Your task to perform on an android device: Go to internet settings Image 0: 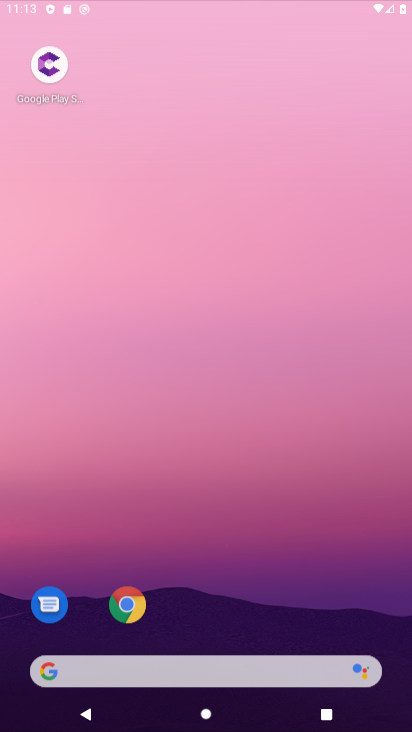
Step 0: press home button
Your task to perform on an android device: Go to internet settings Image 1: 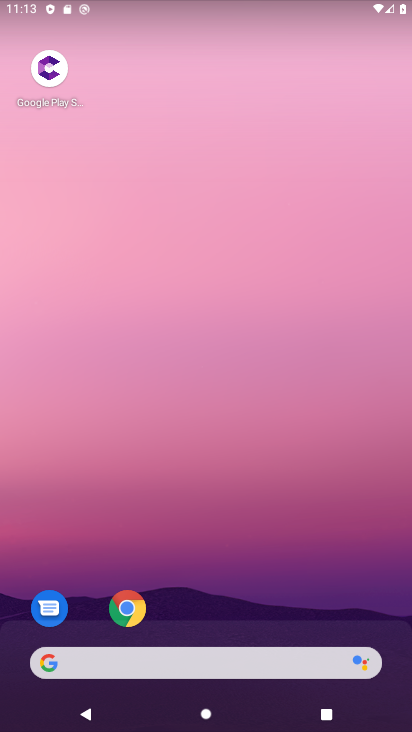
Step 1: drag from (211, 540) to (157, 58)
Your task to perform on an android device: Go to internet settings Image 2: 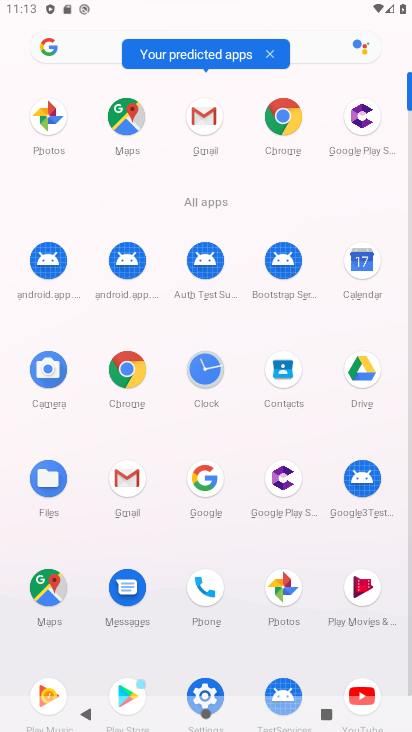
Step 2: click (206, 685)
Your task to perform on an android device: Go to internet settings Image 3: 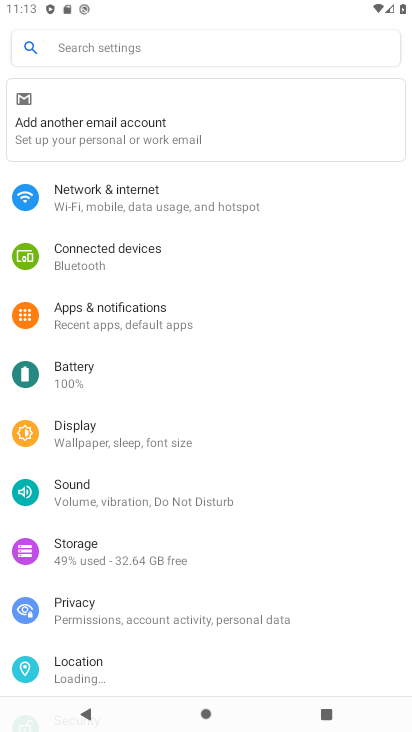
Step 3: click (183, 203)
Your task to perform on an android device: Go to internet settings Image 4: 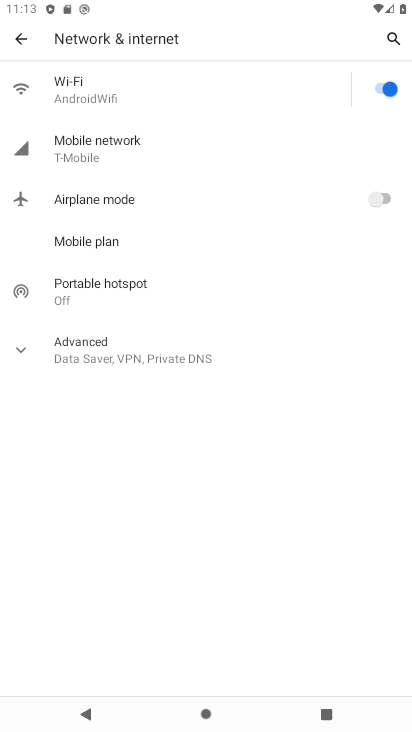
Step 4: task complete